Your task to perform on an android device: change your default location settings in chrome Image 0: 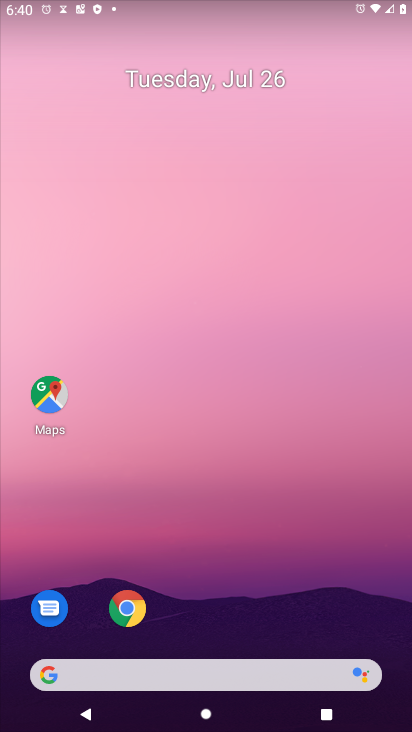
Step 0: press home button
Your task to perform on an android device: change your default location settings in chrome Image 1: 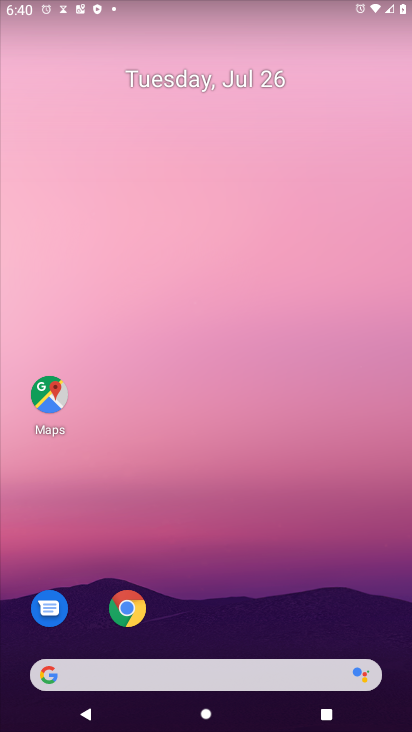
Step 1: drag from (227, 306) to (236, 149)
Your task to perform on an android device: change your default location settings in chrome Image 2: 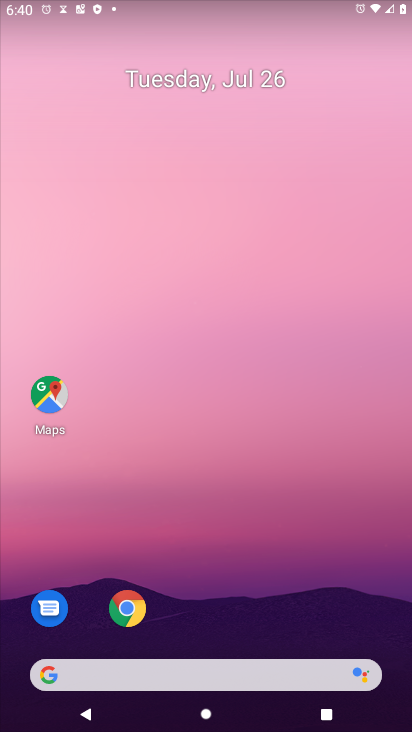
Step 2: drag from (246, 589) to (203, 102)
Your task to perform on an android device: change your default location settings in chrome Image 3: 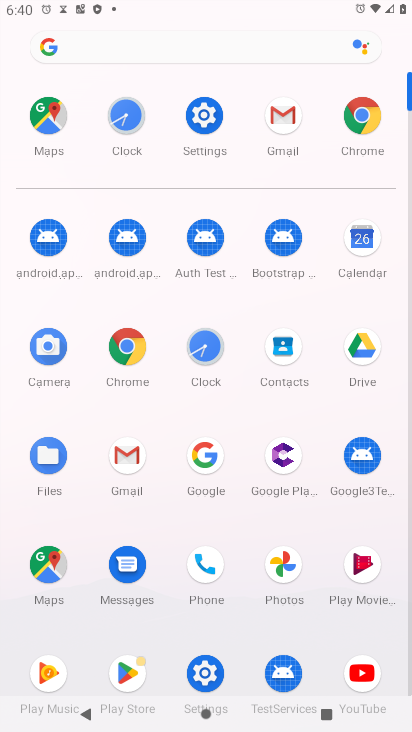
Step 3: click (370, 126)
Your task to perform on an android device: change your default location settings in chrome Image 4: 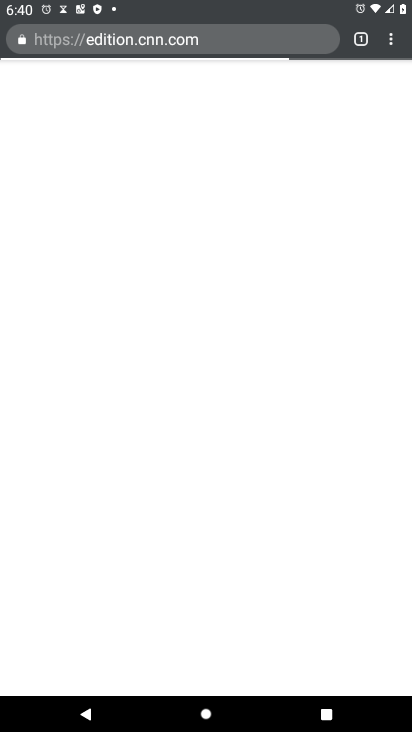
Step 4: drag from (384, 43) to (271, 366)
Your task to perform on an android device: change your default location settings in chrome Image 5: 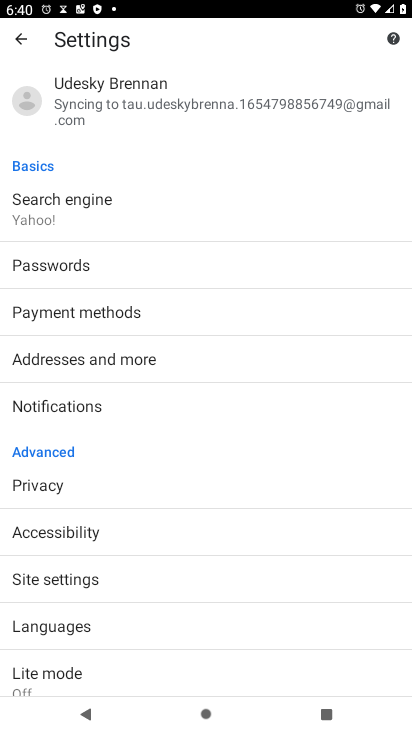
Step 5: click (57, 588)
Your task to perform on an android device: change your default location settings in chrome Image 6: 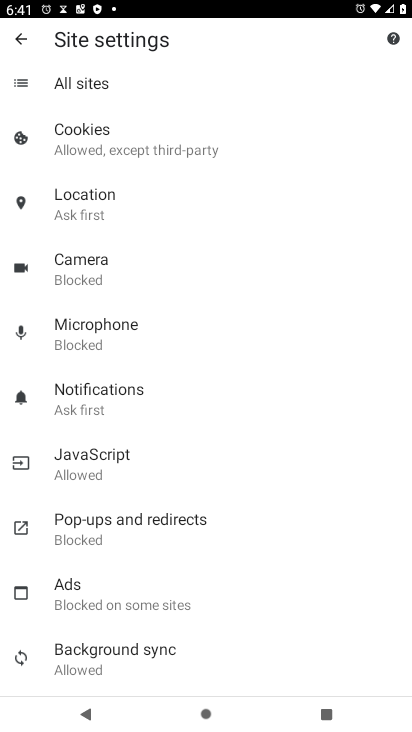
Step 6: click (80, 210)
Your task to perform on an android device: change your default location settings in chrome Image 7: 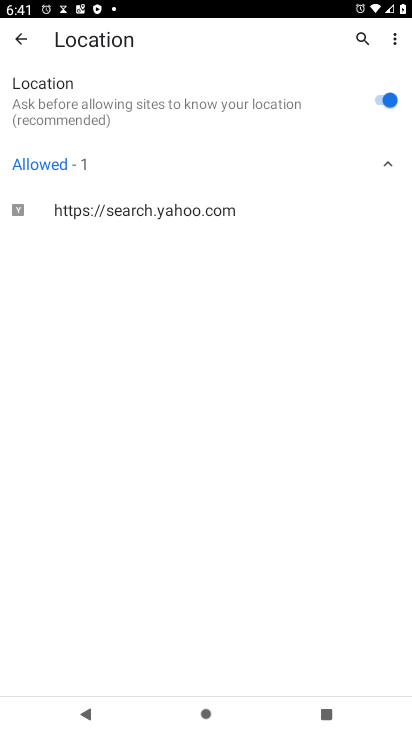
Step 7: click (399, 97)
Your task to perform on an android device: change your default location settings in chrome Image 8: 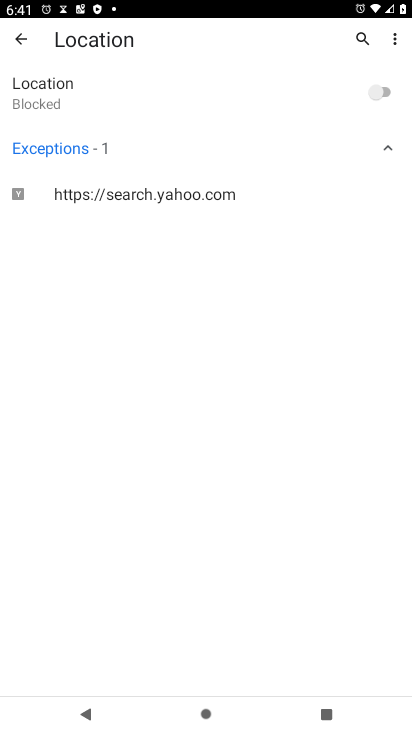
Step 8: task complete